Your task to perform on an android device: open app "Facebook Lite" (install if not already installed), go to login, and select forgot password Image 0: 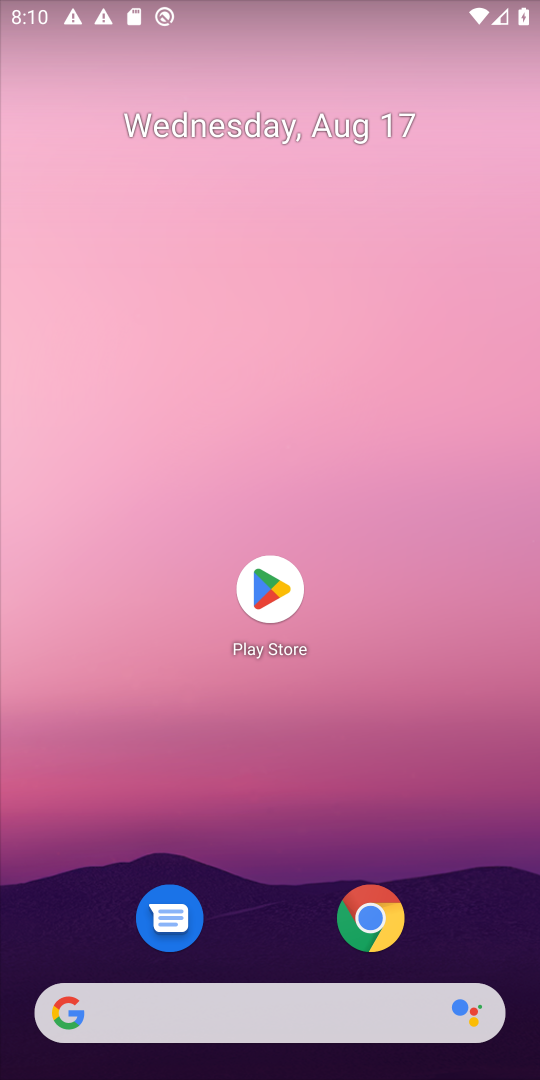
Step 0: click (266, 584)
Your task to perform on an android device: open app "Facebook Lite" (install if not already installed), go to login, and select forgot password Image 1: 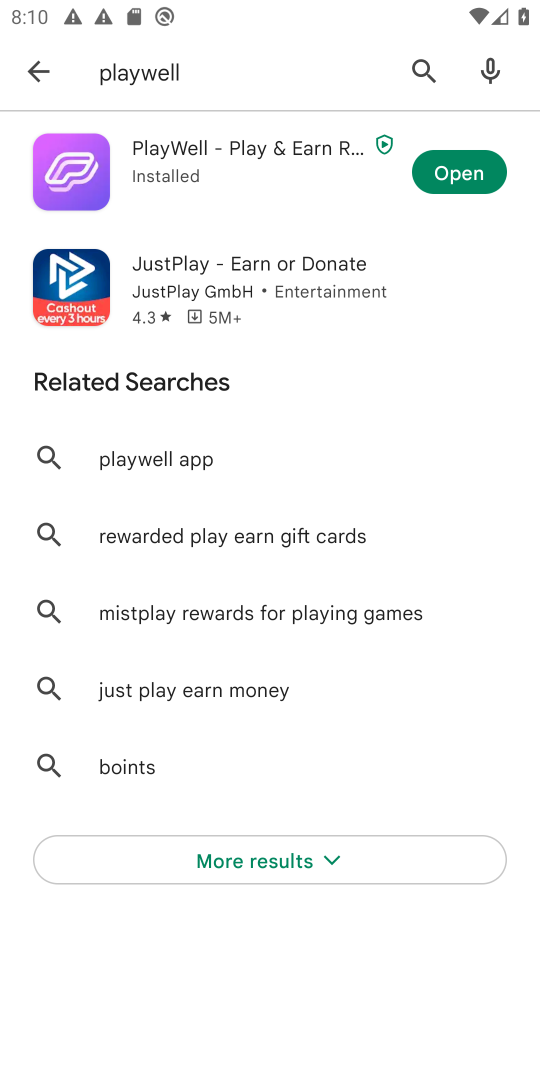
Step 1: click (419, 72)
Your task to perform on an android device: open app "Facebook Lite" (install if not already installed), go to login, and select forgot password Image 2: 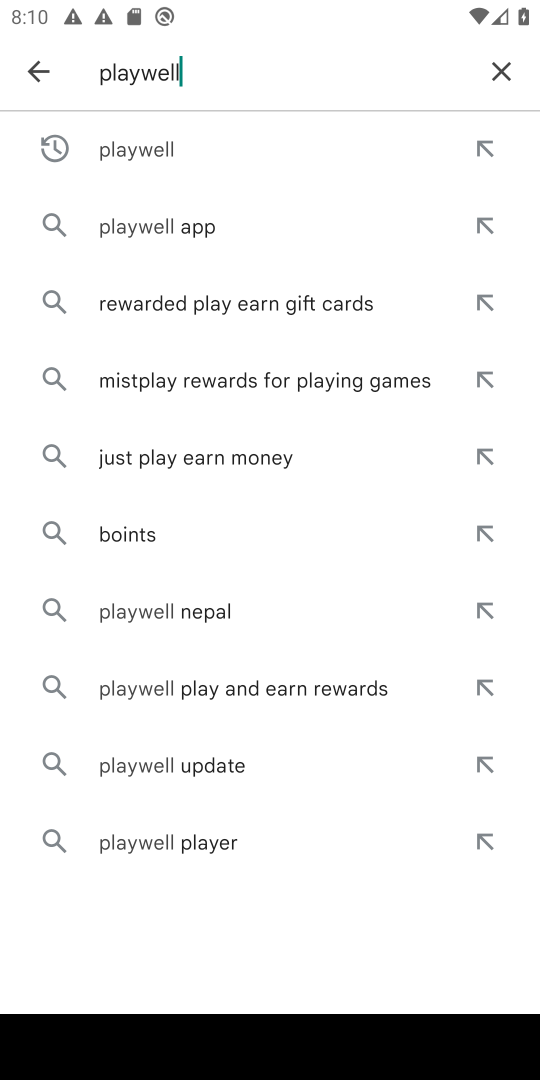
Step 2: click (491, 75)
Your task to perform on an android device: open app "Facebook Lite" (install if not already installed), go to login, and select forgot password Image 3: 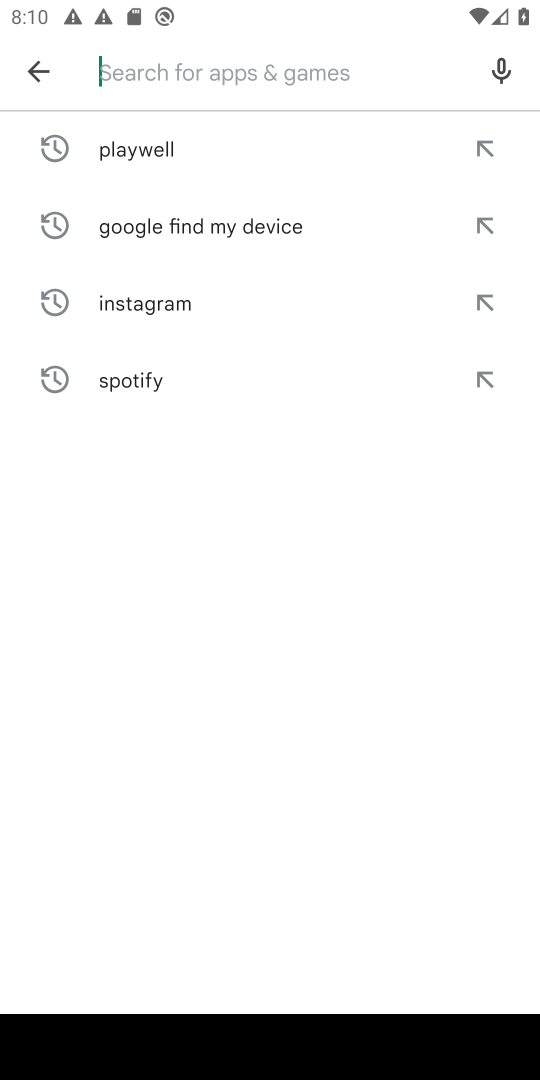
Step 3: type "Facebook Lite"
Your task to perform on an android device: open app "Facebook Lite" (install if not already installed), go to login, and select forgot password Image 4: 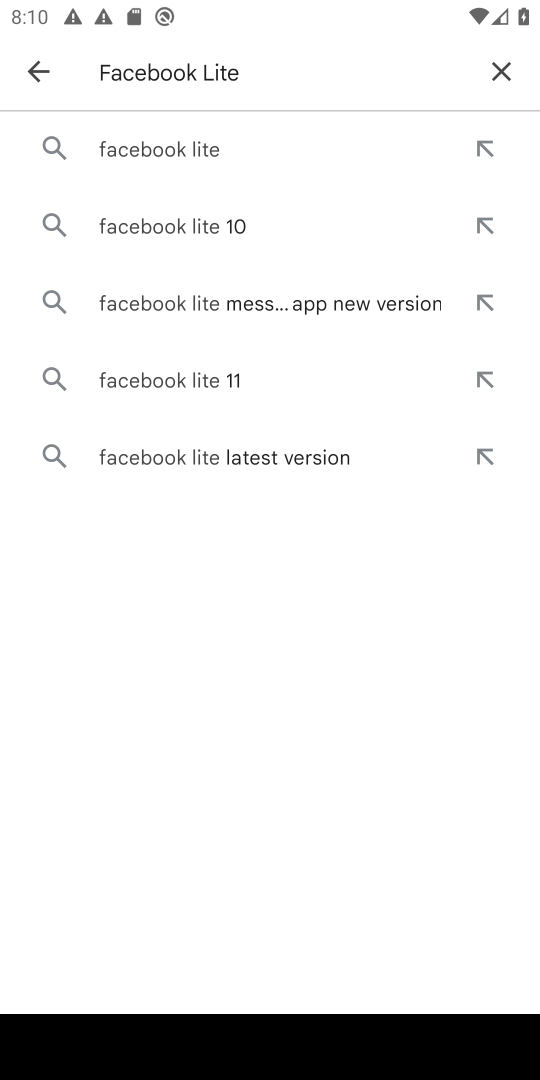
Step 4: click (176, 144)
Your task to perform on an android device: open app "Facebook Lite" (install if not already installed), go to login, and select forgot password Image 5: 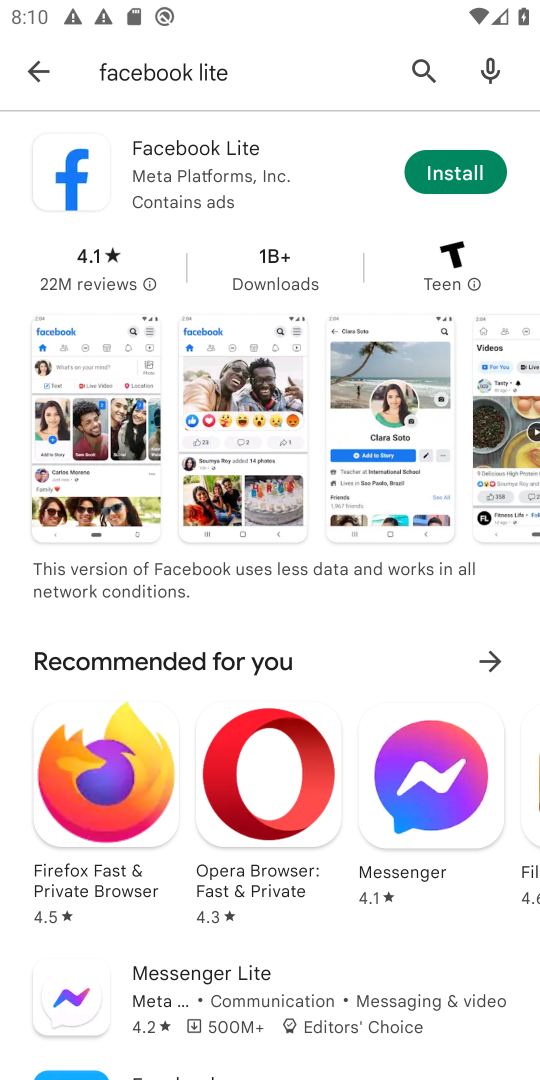
Step 5: click (447, 170)
Your task to perform on an android device: open app "Facebook Lite" (install if not already installed), go to login, and select forgot password Image 6: 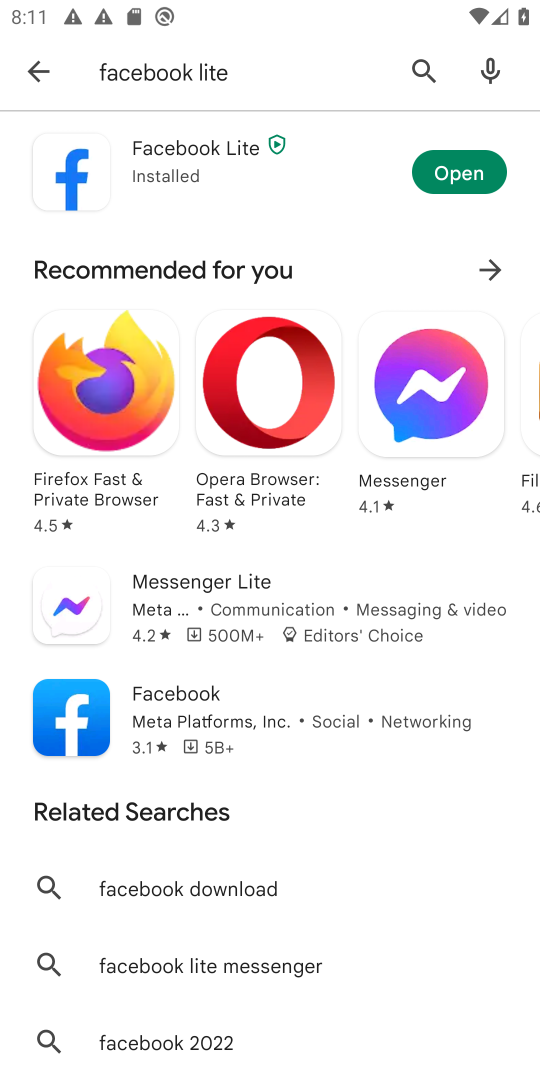
Step 6: click (458, 166)
Your task to perform on an android device: open app "Facebook Lite" (install if not already installed), go to login, and select forgot password Image 7: 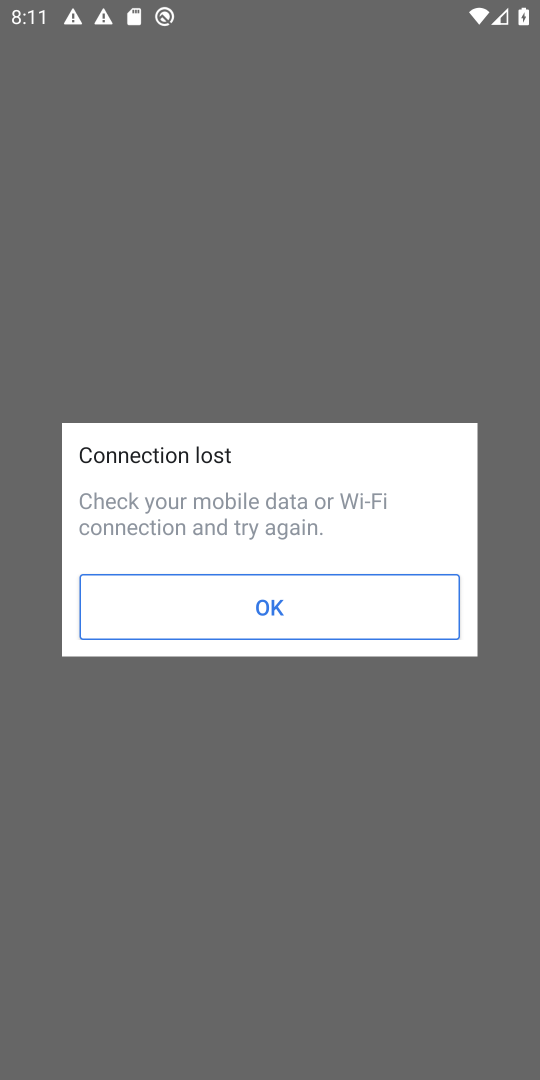
Step 7: task complete